Your task to perform on an android device: turn on wifi Image 0: 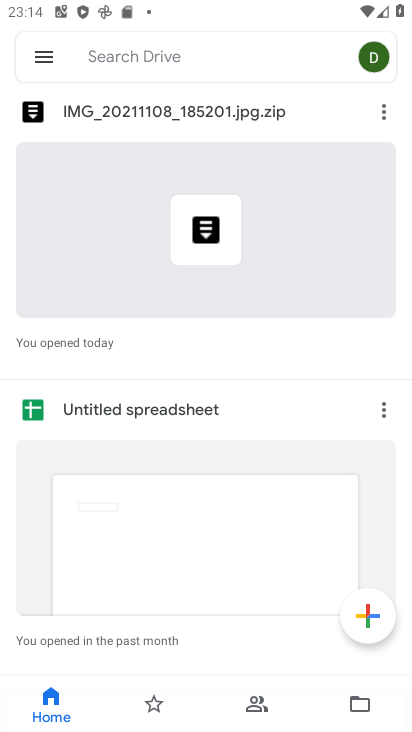
Step 0: press home button
Your task to perform on an android device: turn on wifi Image 1: 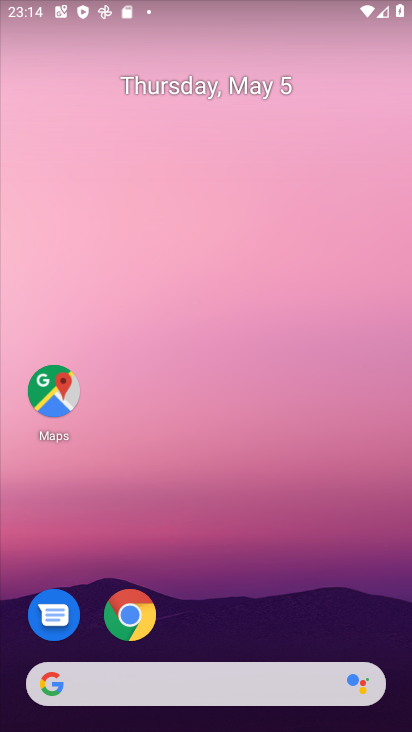
Step 1: drag from (242, 583) to (236, 104)
Your task to perform on an android device: turn on wifi Image 2: 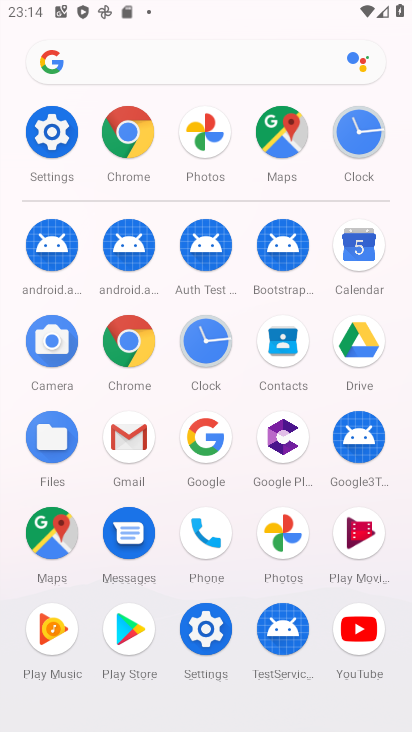
Step 2: click (48, 135)
Your task to perform on an android device: turn on wifi Image 3: 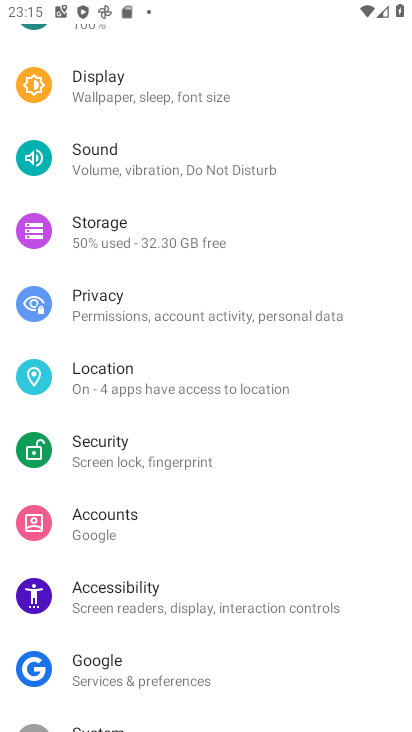
Step 3: drag from (130, 100) to (208, 641)
Your task to perform on an android device: turn on wifi Image 4: 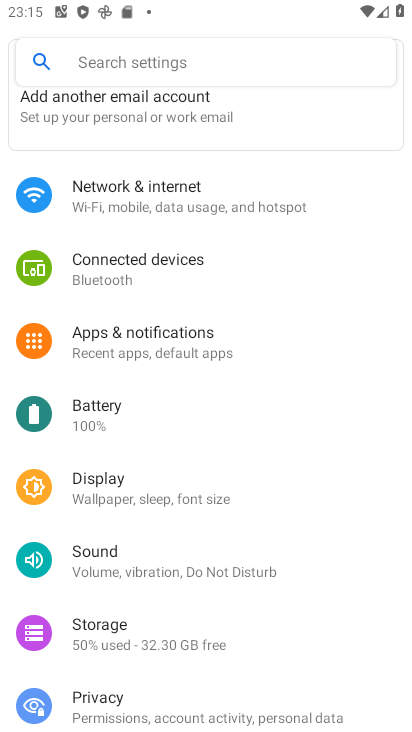
Step 4: click (135, 214)
Your task to perform on an android device: turn on wifi Image 5: 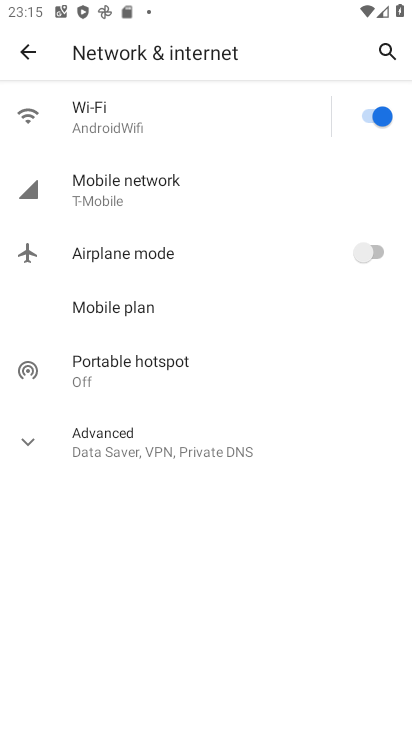
Step 5: task complete